Your task to perform on an android device: What's the news in Paraguay? Image 0: 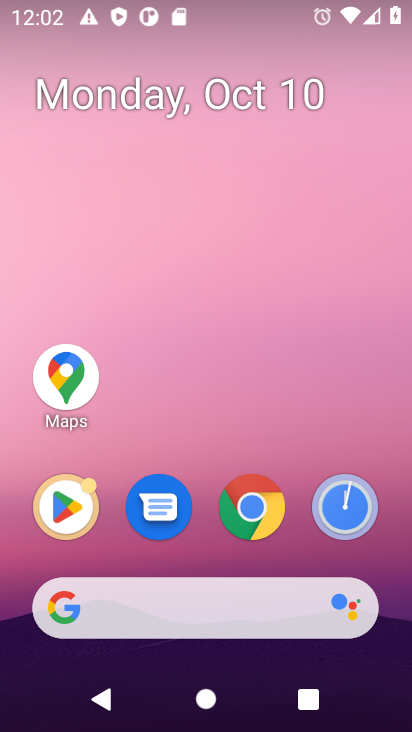
Step 0: press home button
Your task to perform on an android device: What's the news in Paraguay? Image 1: 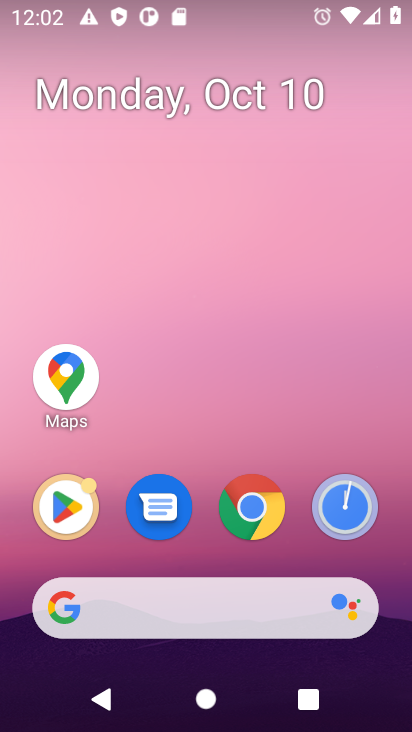
Step 1: click (216, 603)
Your task to perform on an android device: What's the news in Paraguay? Image 2: 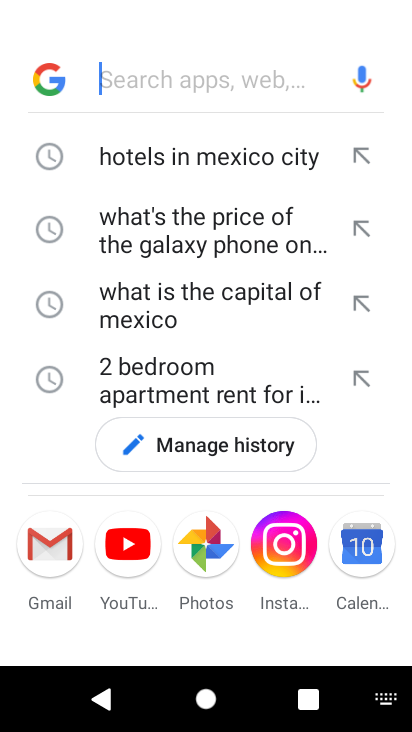
Step 2: type "What's the news in Paraguay"
Your task to perform on an android device: What's the news in Paraguay? Image 3: 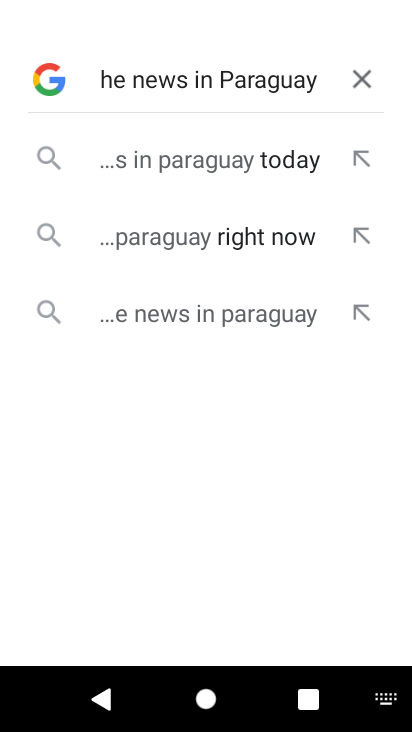
Step 3: press enter
Your task to perform on an android device: What's the news in Paraguay? Image 4: 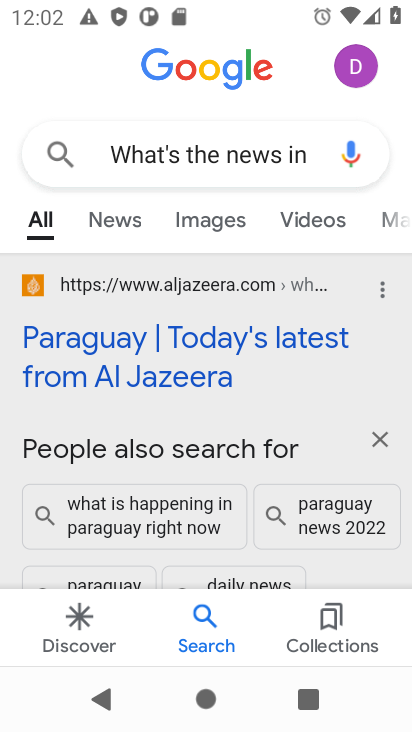
Step 4: click (191, 346)
Your task to perform on an android device: What's the news in Paraguay? Image 5: 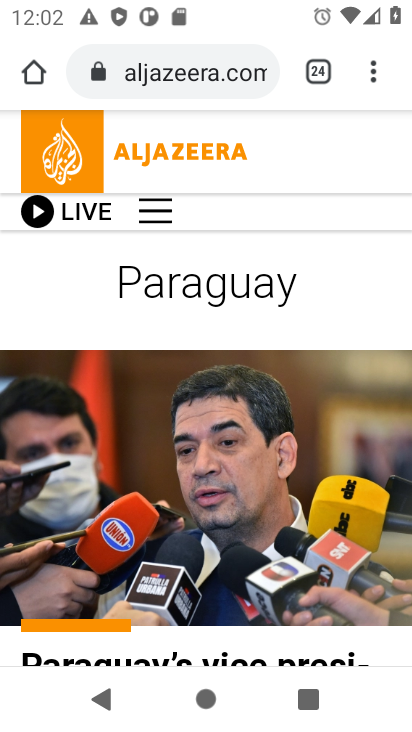
Step 5: task complete